Your task to perform on an android device: Go to display settings Image 0: 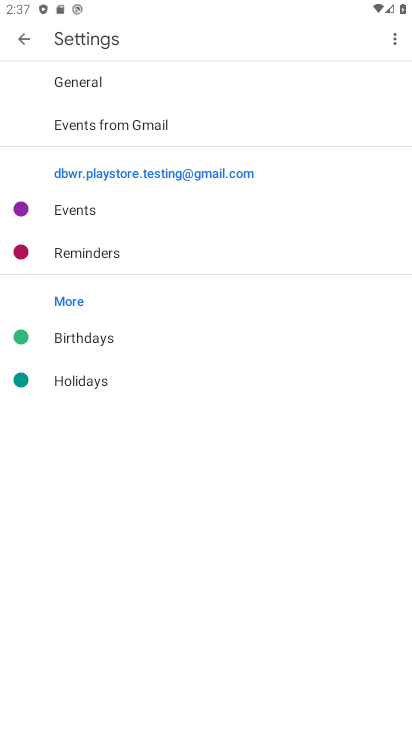
Step 0: press home button
Your task to perform on an android device: Go to display settings Image 1: 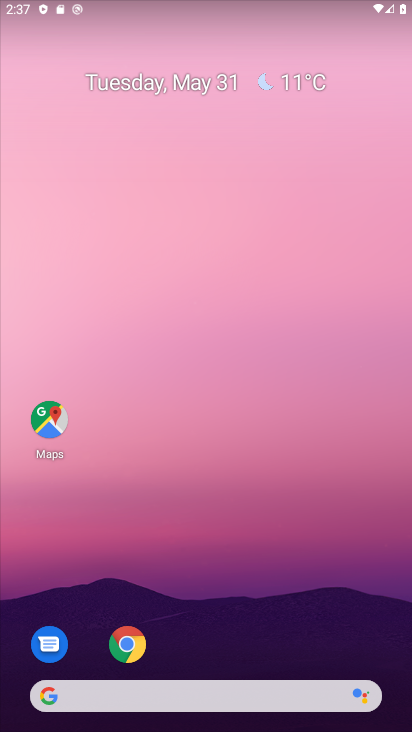
Step 1: drag from (251, 561) to (231, 287)
Your task to perform on an android device: Go to display settings Image 2: 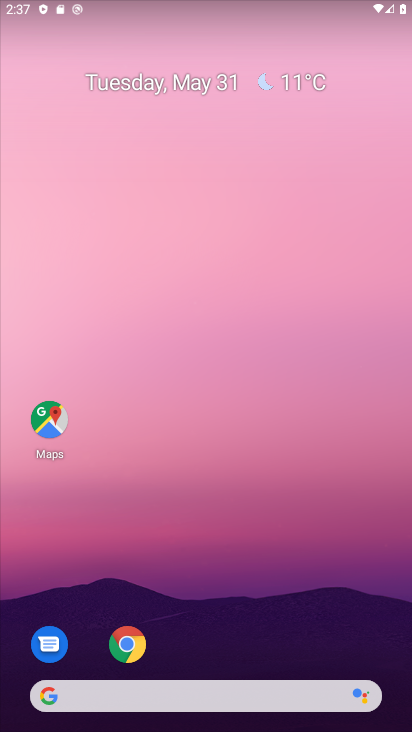
Step 2: drag from (258, 601) to (162, 4)
Your task to perform on an android device: Go to display settings Image 3: 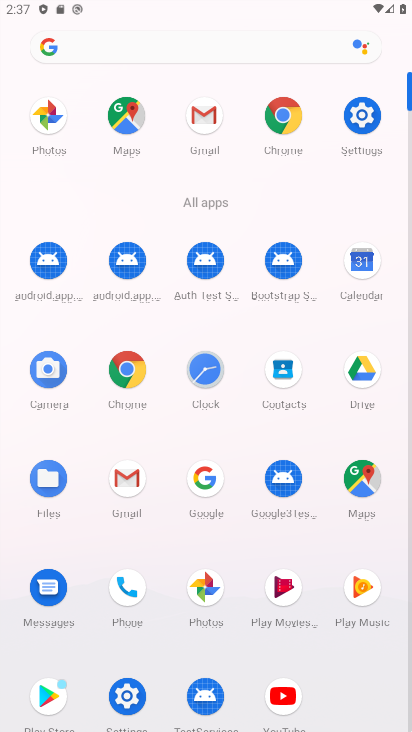
Step 3: click (369, 108)
Your task to perform on an android device: Go to display settings Image 4: 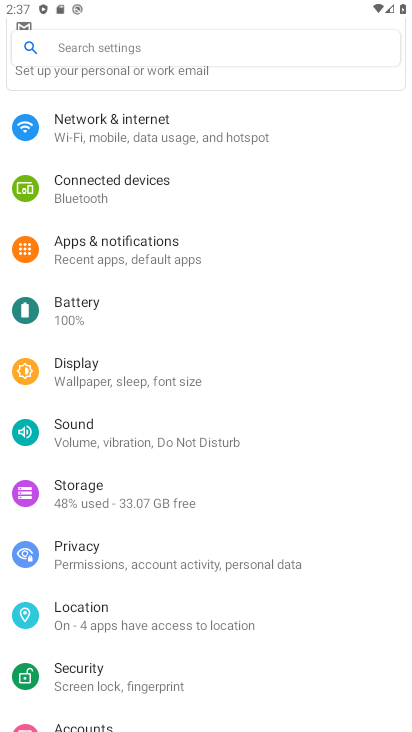
Step 4: click (105, 365)
Your task to perform on an android device: Go to display settings Image 5: 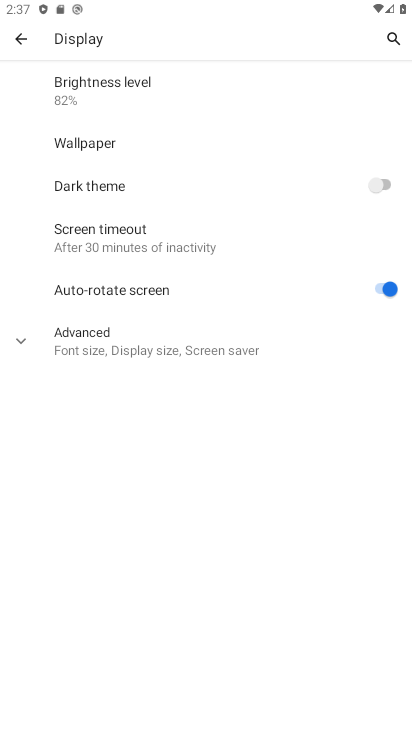
Step 5: task complete